Your task to perform on an android device: toggle sleep mode Image 0: 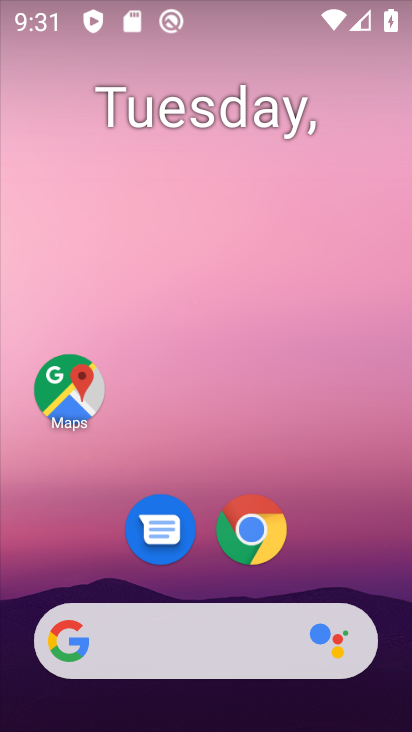
Step 0: task impossible